Your task to perform on an android device: Open settings on Google Maps Image 0: 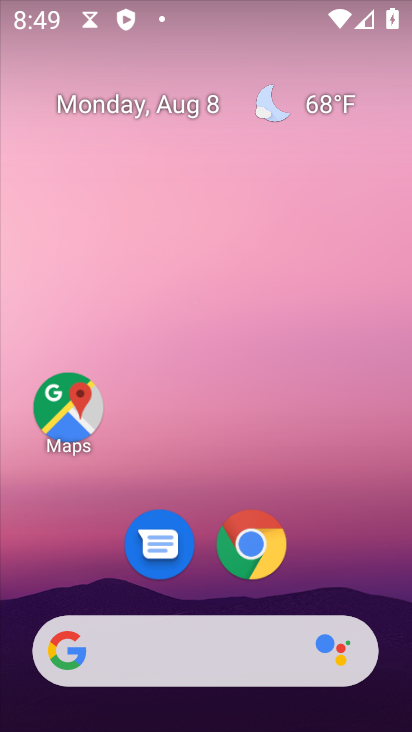
Step 0: press home button
Your task to perform on an android device: Open settings on Google Maps Image 1: 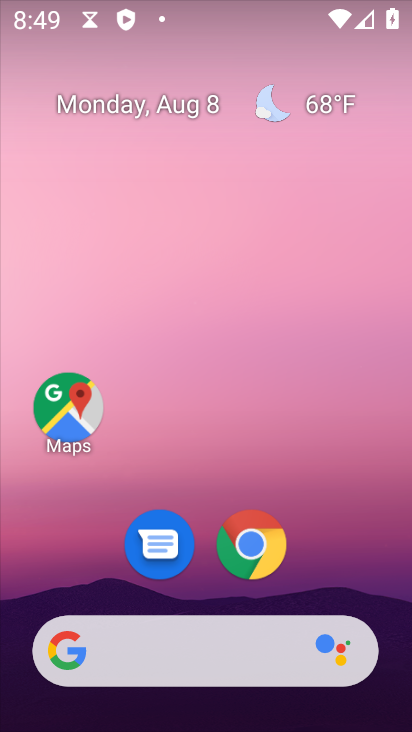
Step 1: click (63, 409)
Your task to perform on an android device: Open settings on Google Maps Image 2: 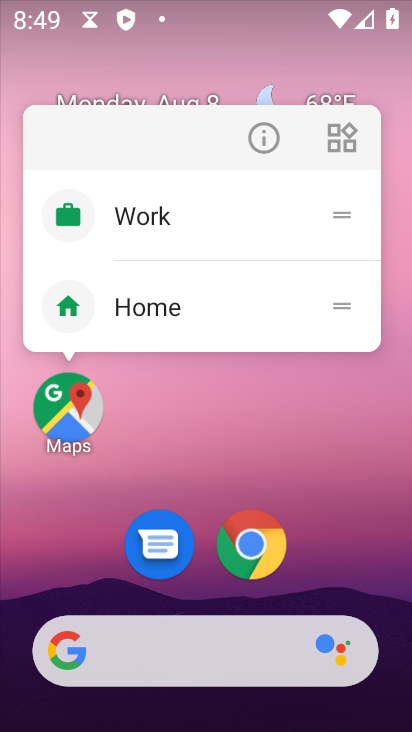
Step 2: click (221, 437)
Your task to perform on an android device: Open settings on Google Maps Image 3: 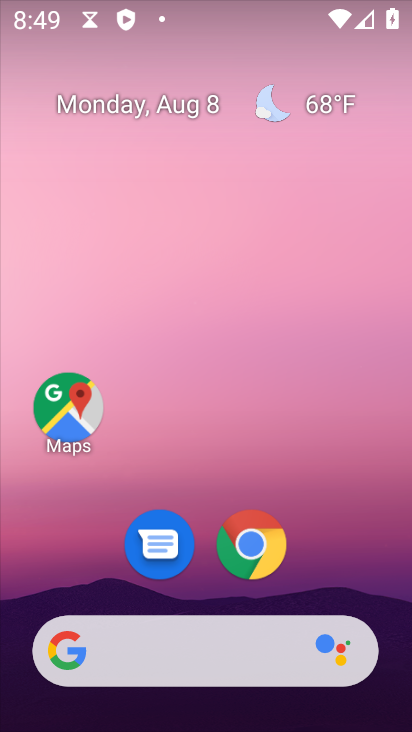
Step 3: drag from (315, 584) to (368, 3)
Your task to perform on an android device: Open settings on Google Maps Image 4: 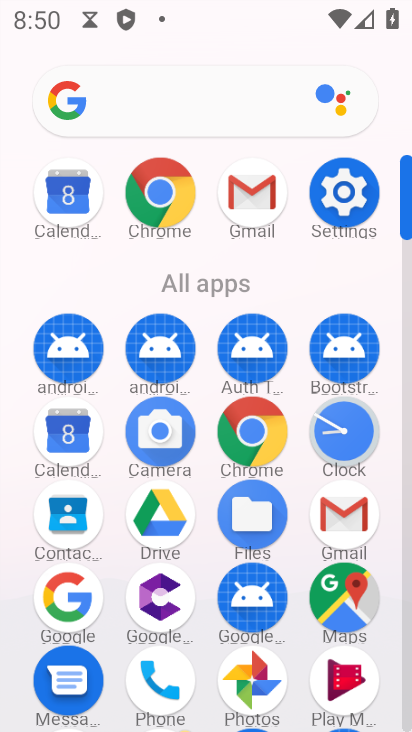
Step 4: click (339, 602)
Your task to perform on an android device: Open settings on Google Maps Image 5: 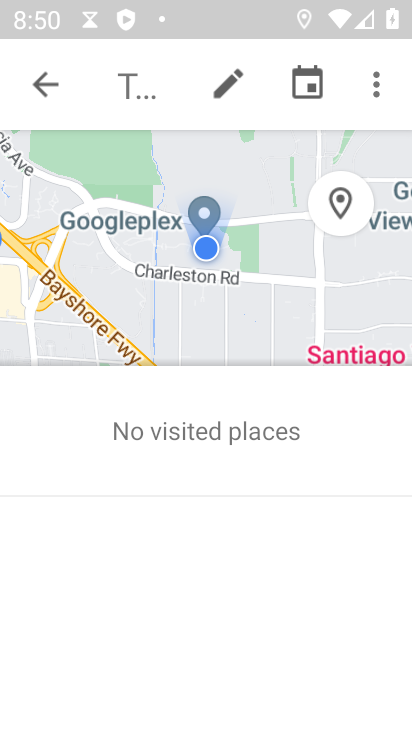
Step 5: click (38, 83)
Your task to perform on an android device: Open settings on Google Maps Image 6: 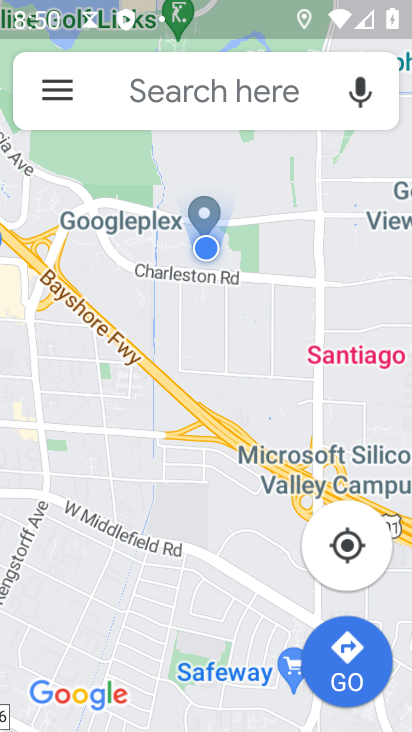
Step 6: click (53, 93)
Your task to perform on an android device: Open settings on Google Maps Image 7: 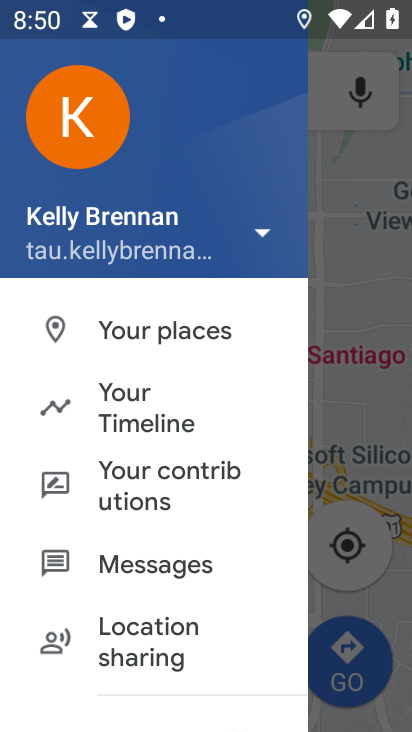
Step 7: drag from (151, 650) to (174, 209)
Your task to perform on an android device: Open settings on Google Maps Image 8: 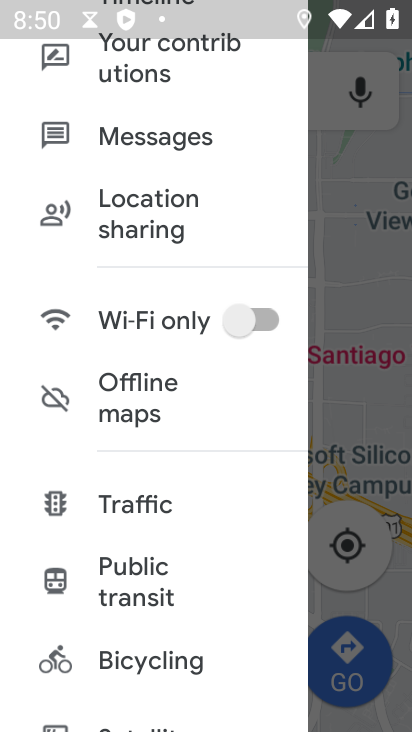
Step 8: drag from (141, 672) to (181, 241)
Your task to perform on an android device: Open settings on Google Maps Image 9: 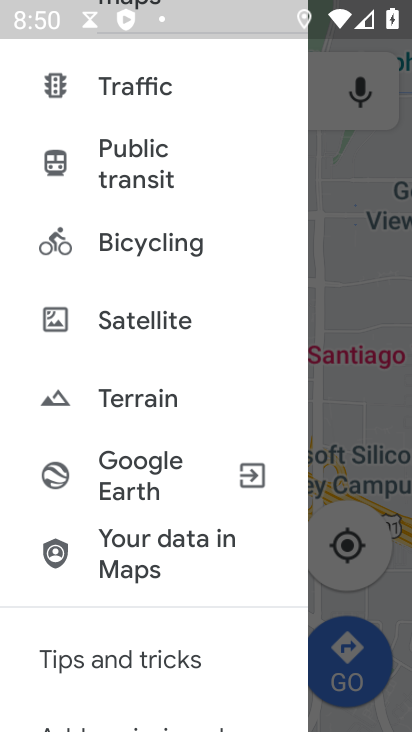
Step 9: drag from (164, 655) to (142, 154)
Your task to perform on an android device: Open settings on Google Maps Image 10: 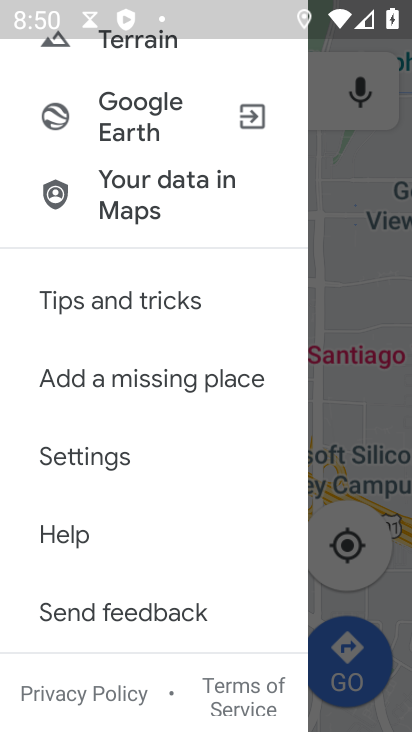
Step 10: click (146, 453)
Your task to perform on an android device: Open settings on Google Maps Image 11: 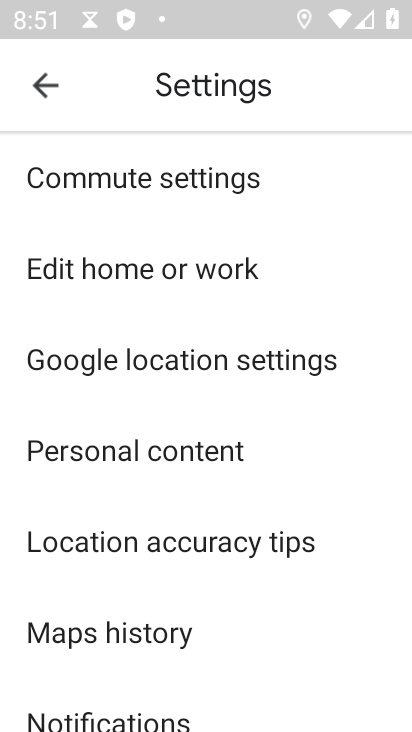
Step 11: task complete